Your task to perform on an android device: turn pop-ups off in chrome Image 0: 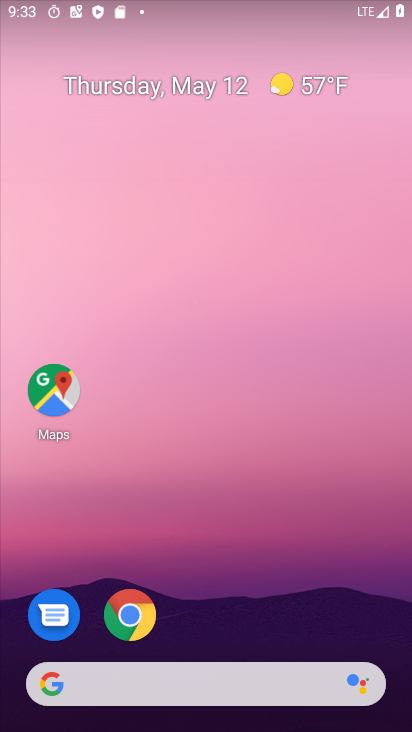
Step 0: drag from (179, 594) to (199, 78)
Your task to perform on an android device: turn pop-ups off in chrome Image 1: 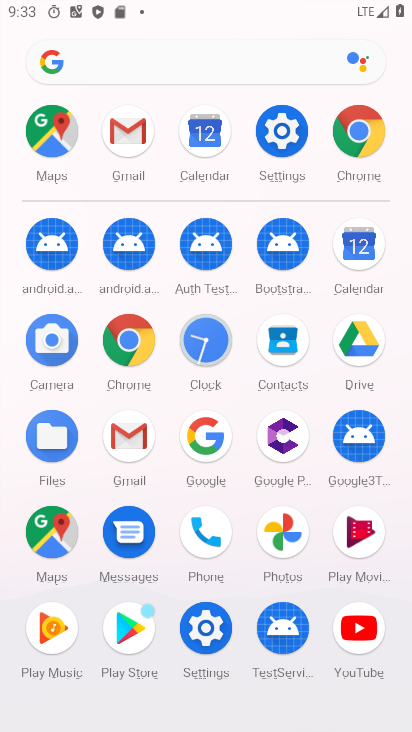
Step 1: drag from (14, 528) to (11, 247)
Your task to perform on an android device: turn pop-ups off in chrome Image 2: 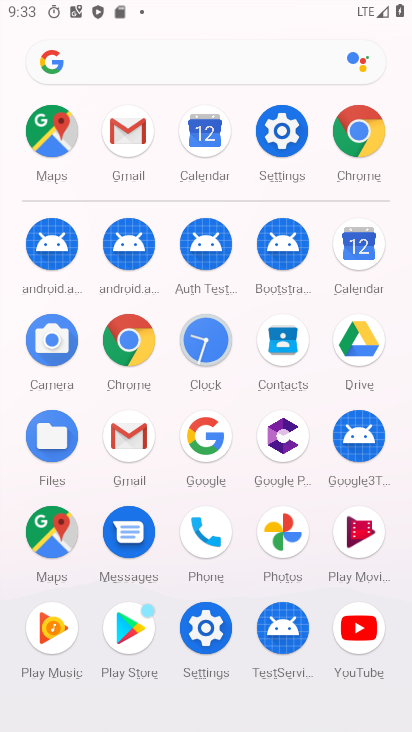
Step 2: click (125, 334)
Your task to perform on an android device: turn pop-ups off in chrome Image 3: 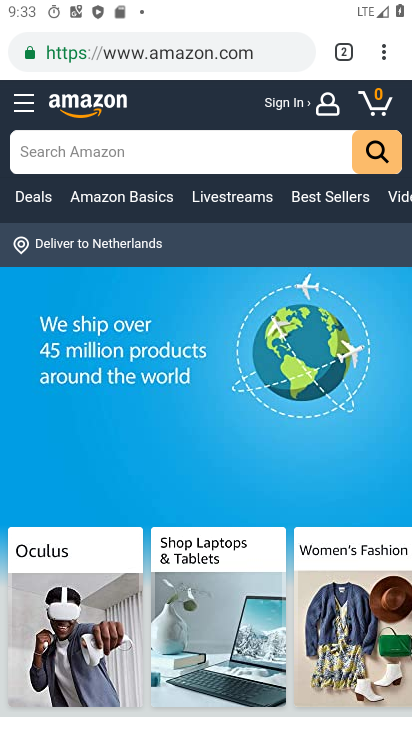
Step 3: drag from (385, 51) to (211, 623)
Your task to perform on an android device: turn pop-ups off in chrome Image 4: 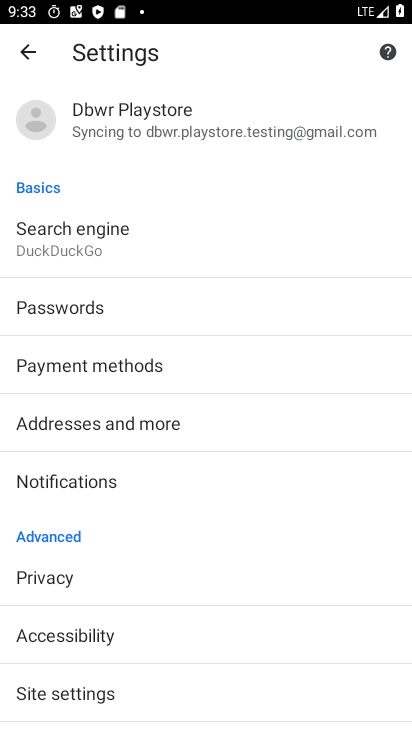
Step 4: drag from (248, 603) to (277, 184)
Your task to perform on an android device: turn pop-ups off in chrome Image 5: 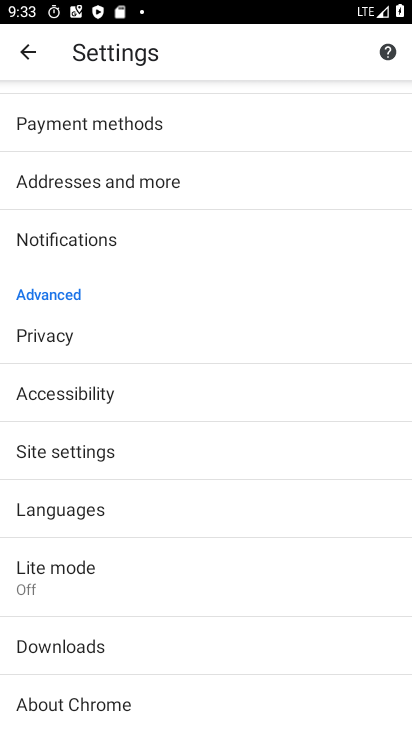
Step 5: click (141, 445)
Your task to perform on an android device: turn pop-ups off in chrome Image 6: 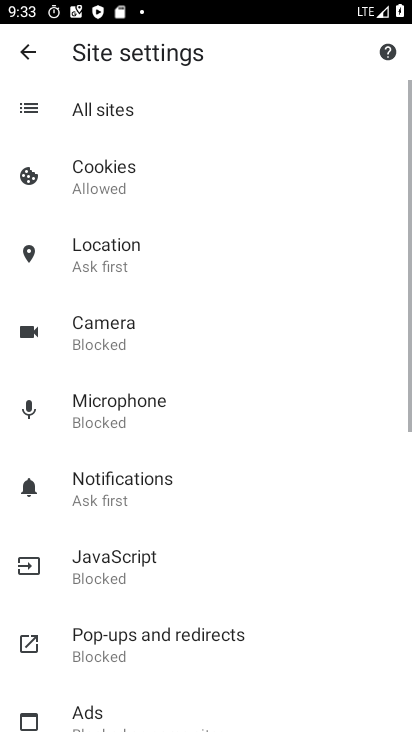
Step 6: task complete